Your task to perform on an android device: read, delete, or share a saved page in the chrome app Image 0: 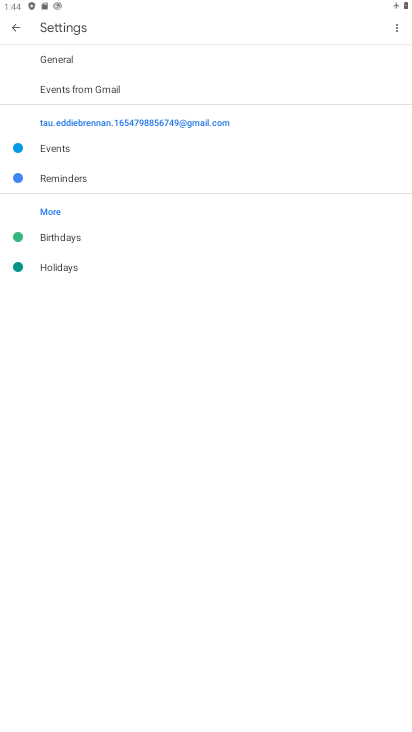
Step 0: press home button
Your task to perform on an android device: read, delete, or share a saved page in the chrome app Image 1: 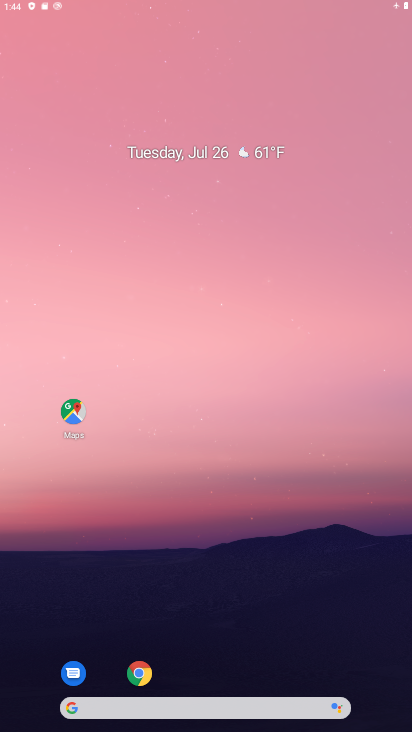
Step 1: drag from (173, 563) to (251, 168)
Your task to perform on an android device: read, delete, or share a saved page in the chrome app Image 2: 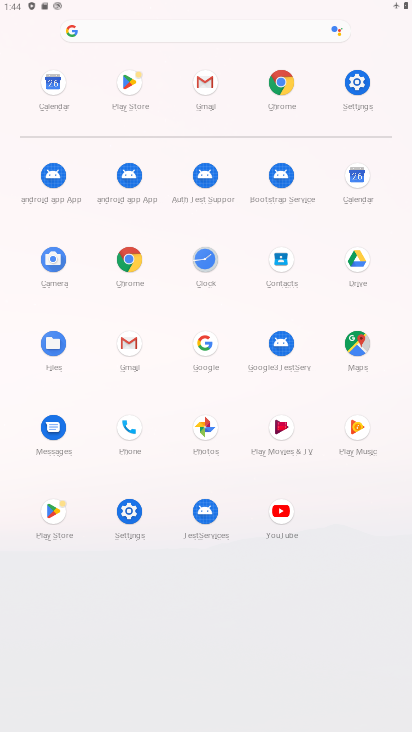
Step 2: click (130, 259)
Your task to perform on an android device: read, delete, or share a saved page in the chrome app Image 3: 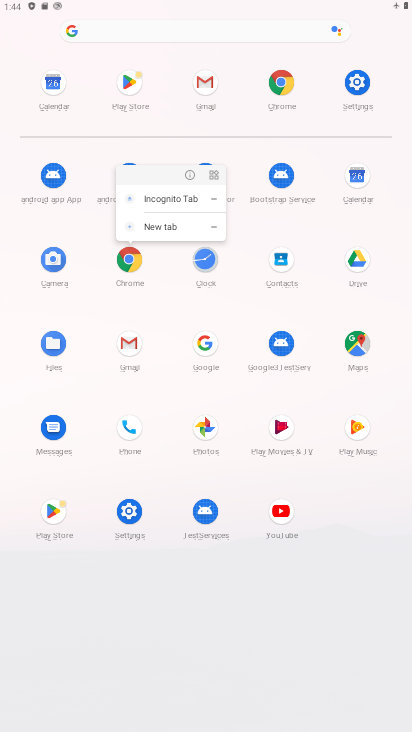
Step 3: click (181, 168)
Your task to perform on an android device: read, delete, or share a saved page in the chrome app Image 4: 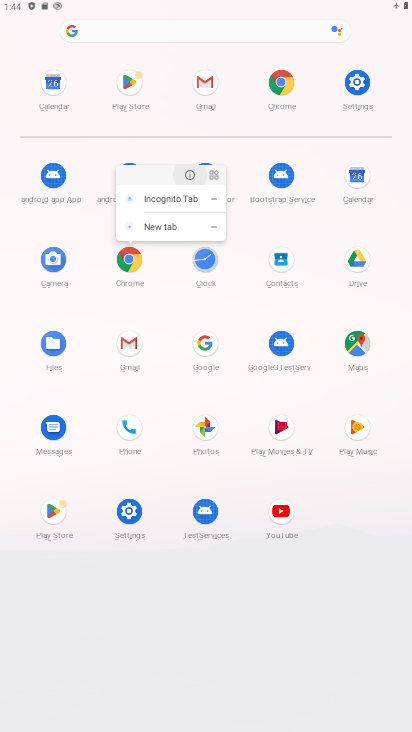
Step 4: click (180, 169)
Your task to perform on an android device: read, delete, or share a saved page in the chrome app Image 5: 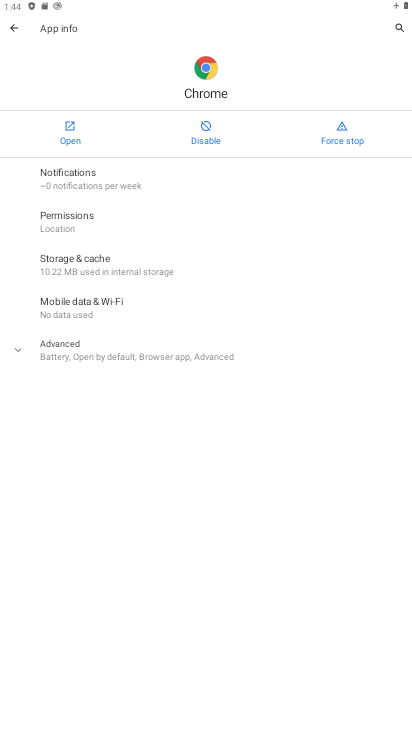
Step 5: click (69, 140)
Your task to perform on an android device: read, delete, or share a saved page in the chrome app Image 6: 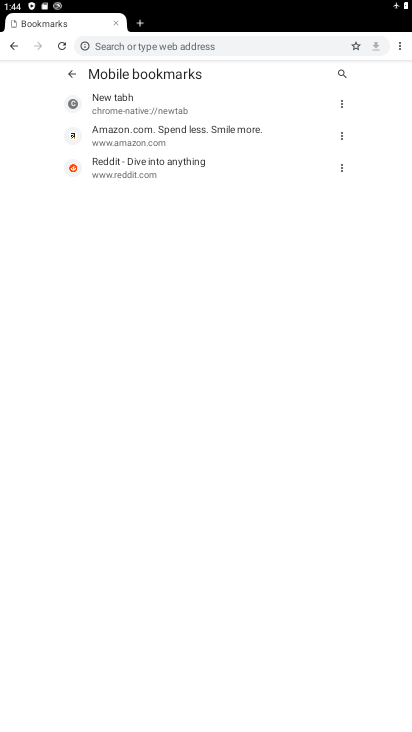
Step 6: drag from (200, 571) to (209, 65)
Your task to perform on an android device: read, delete, or share a saved page in the chrome app Image 7: 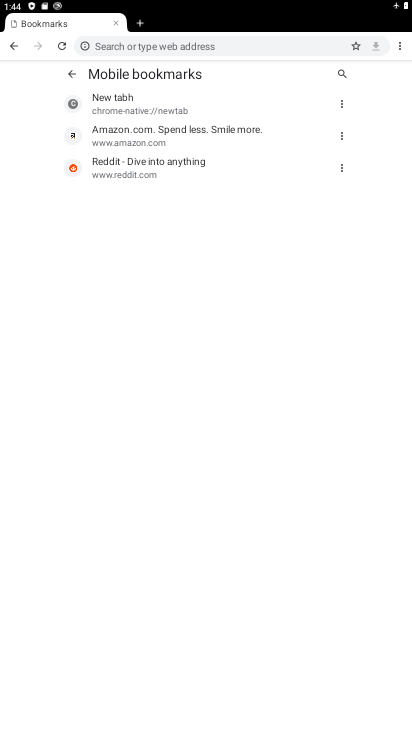
Step 7: click (157, 168)
Your task to perform on an android device: read, delete, or share a saved page in the chrome app Image 8: 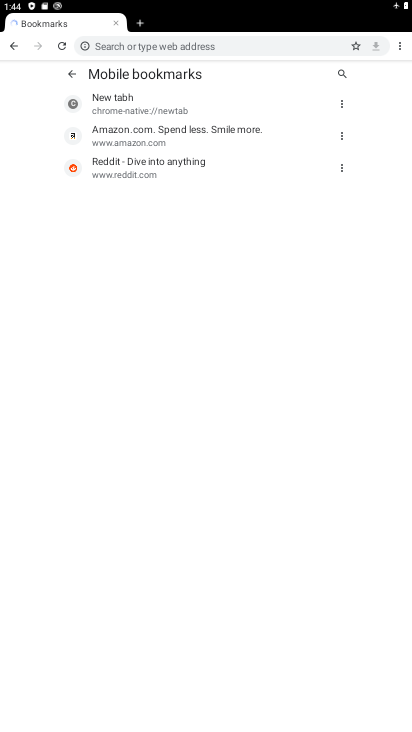
Step 8: task complete